Your task to perform on an android device: create a new album in the google photos Image 0: 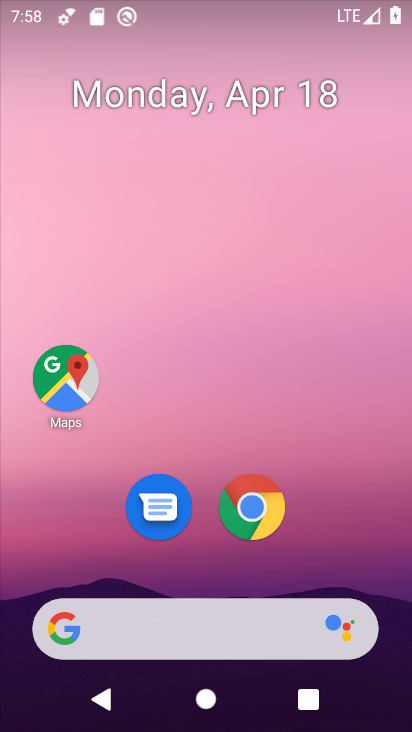
Step 0: drag from (9, 504) to (234, 59)
Your task to perform on an android device: create a new album in the google photos Image 1: 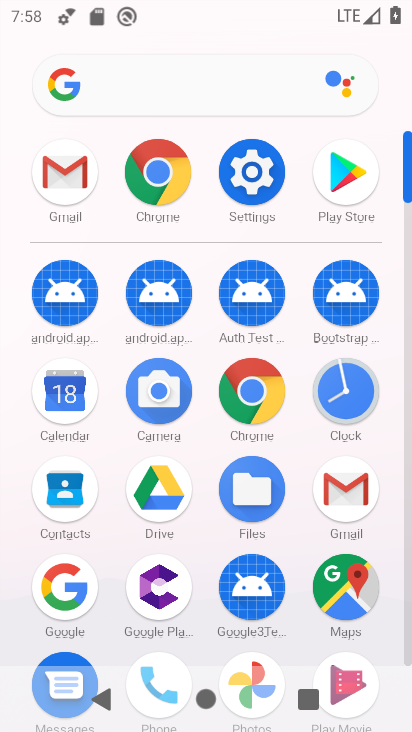
Step 1: click (261, 662)
Your task to perform on an android device: create a new album in the google photos Image 2: 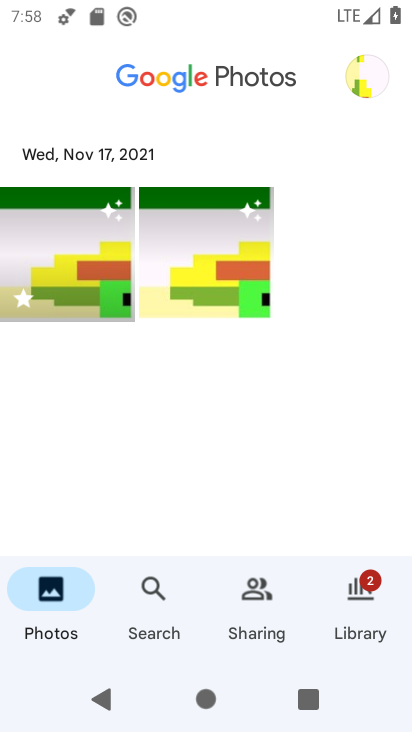
Step 2: click (83, 236)
Your task to perform on an android device: create a new album in the google photos Image 3: 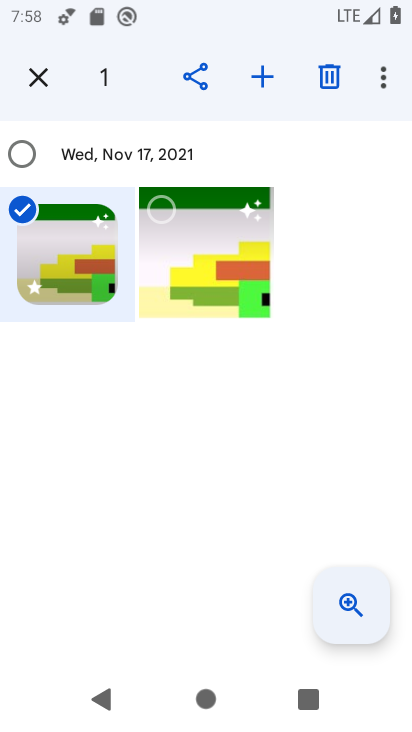
Step 3: click (259, 81)
Your task to perform on an android device: create a new album in the google photos Image 4: 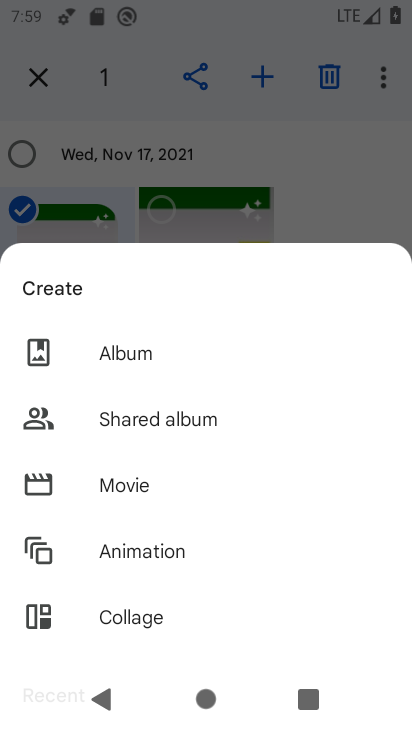
Step 4: click (191, 357)
Your task to perform on an android device: create a new album in the google photos Image 5: 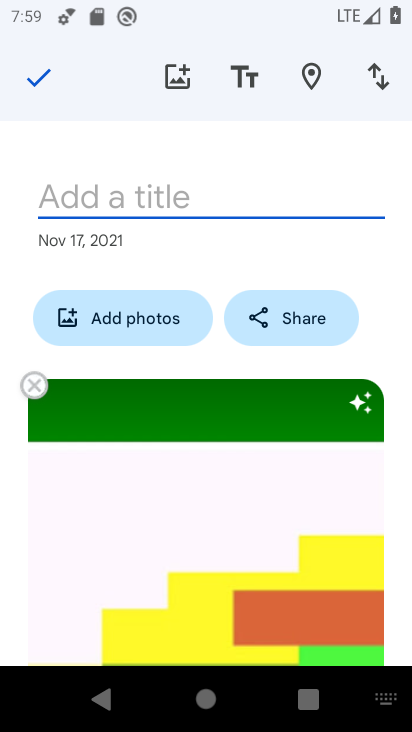
Step 5: type "VK"
Your task to perform on an android device: create a new album in the google photos Image 6: 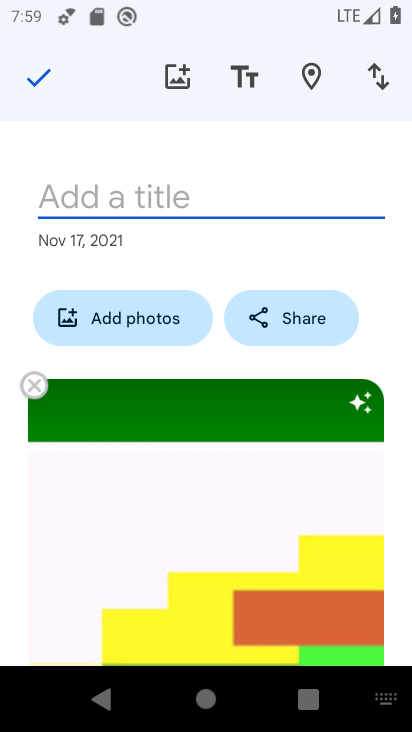
Step 6: click (39, 91)
Your task to perform on an android device: create a new album in the google photos Image 7: 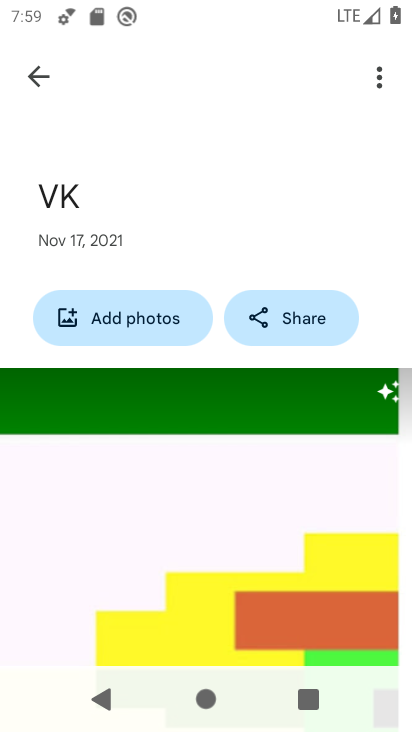
Step 7: task complete